Your task to perform on an android device: Search for pizza restaurants on Maps Image 0: 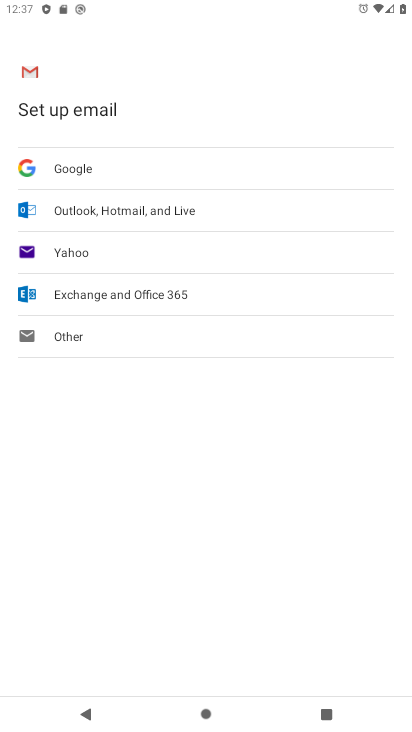
Step 0: press home button
Your task to perform on an android device: Search for pizza restaurants on Maps Image 1: 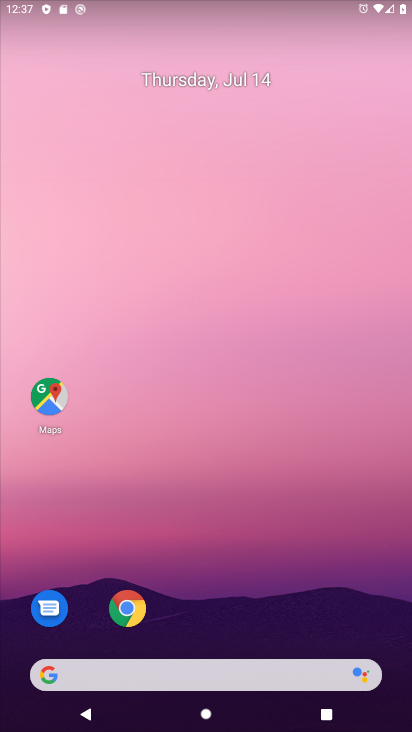
Step 1: click (47, 399)
Your task to perform on an android device: Search for pizza restaurants on Maps Image 2: 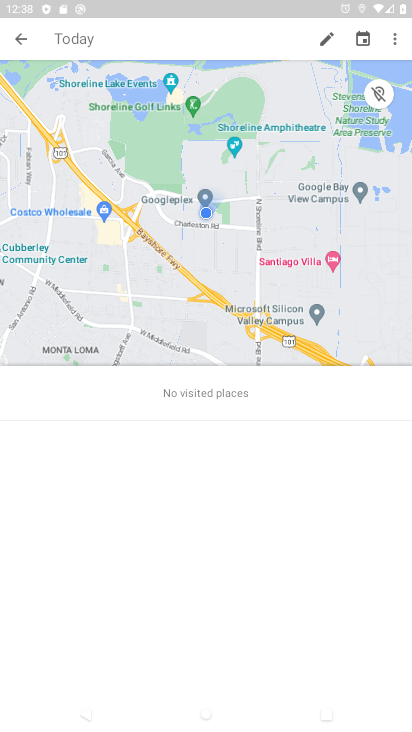
Step 2: press back button
Your task to perform on an android device: Search for pizza restaurants on Maps Image 3: 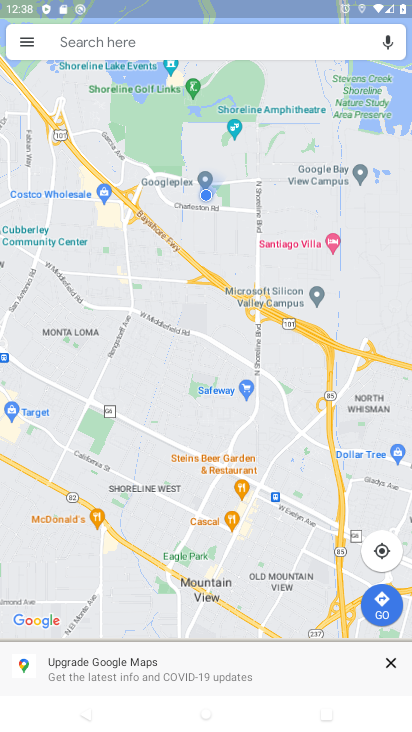
Step 3: click (207, 43)
Your task to perform on an android device: Search for pizza restaurants on Maps Image 4: 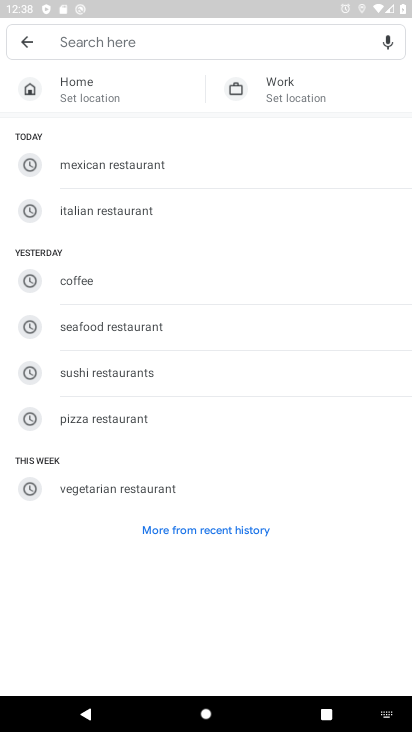
Step 4: type "pizza restaurants"
Your task to perform on an android device: Search for pizza restaurants on Maps Image 5: 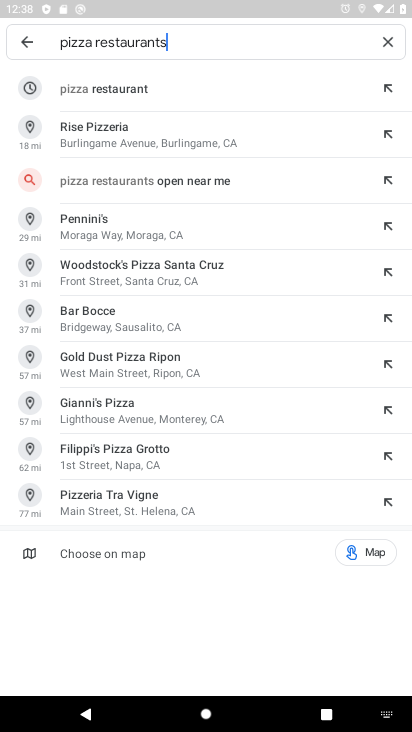
Step 5: click (130, 94)
Your task to perform on an android device: Search for pizza restaurants on Maps Image 6: 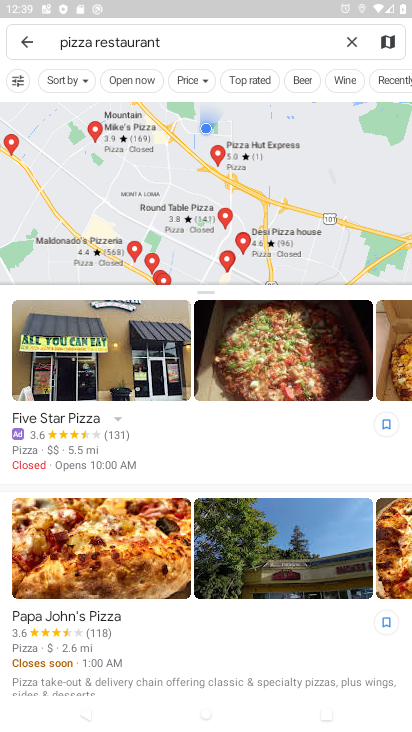
Step 6: task complete